Your task to perform on an android device: toggle notifications settings in the gmail app Image 0: 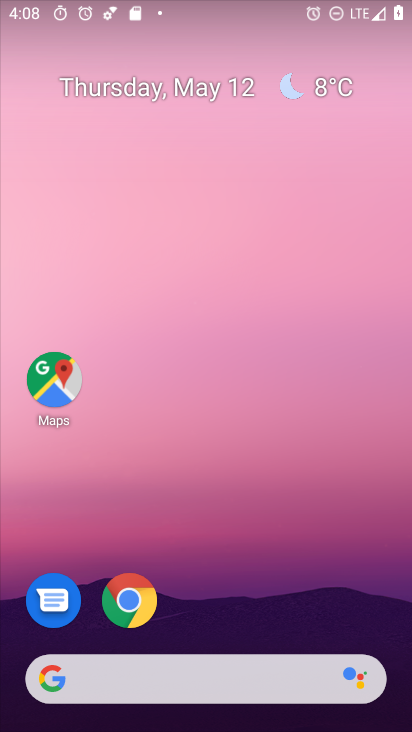
Step 0: drag from (209, 725) to (210, 223)
Your task to perform on an android device: toggle notifications settings in the gmail app Image 1: 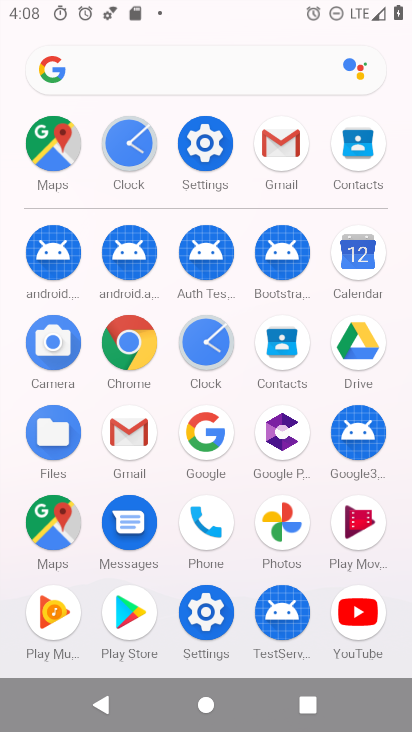
Step 1: click (204, 142)
Your task to perform on an android device: toggle notifications settings in the gmail app Image 2: 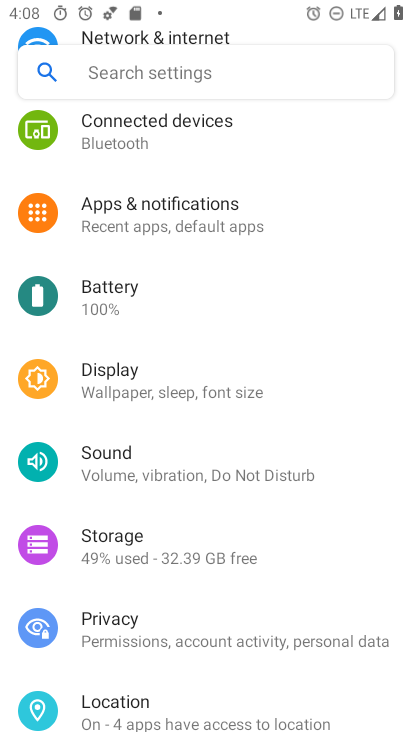
Step 2: press back button
Your task to perform on an android device: toggle notifications settings in the gmail app Image 3: 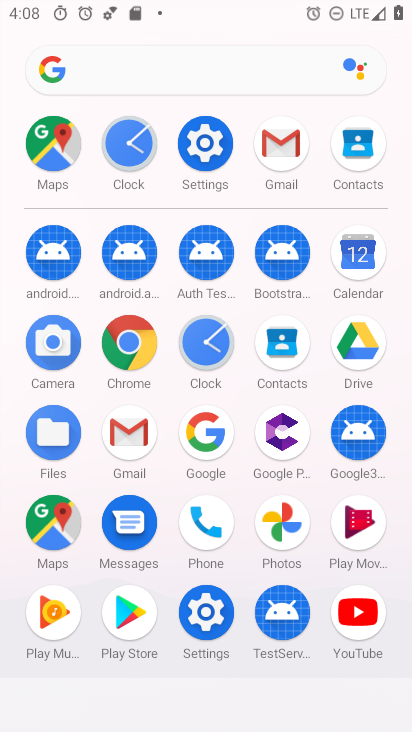
Step 3: click (125, 437)
Your task to perform on an android device: toggle notifications settings in the gmail app Image 4: 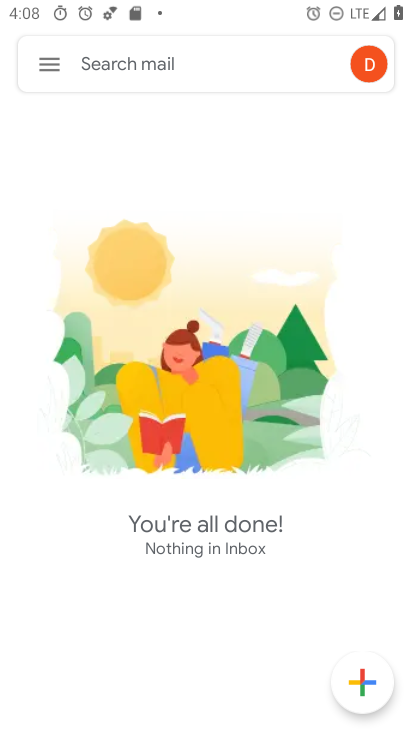
Step 4: click (46, 60)
Your task to perform on an android device: toggle notifications settings in the gmail app Image 5: 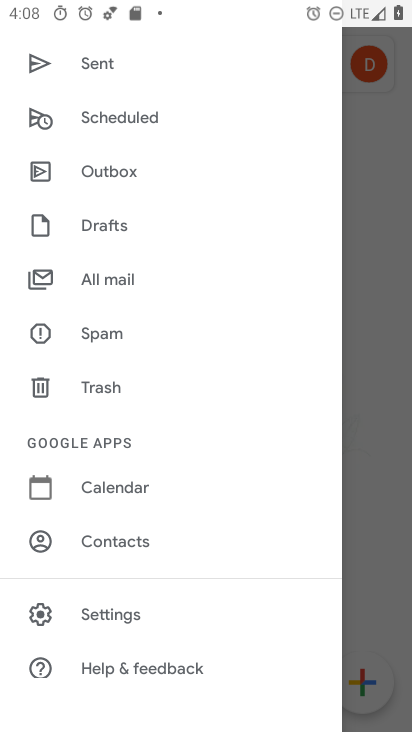
Step 5: click (105, 607)
Your task to perform on an android device: toggle notifications settings in the gmail app Image 6: 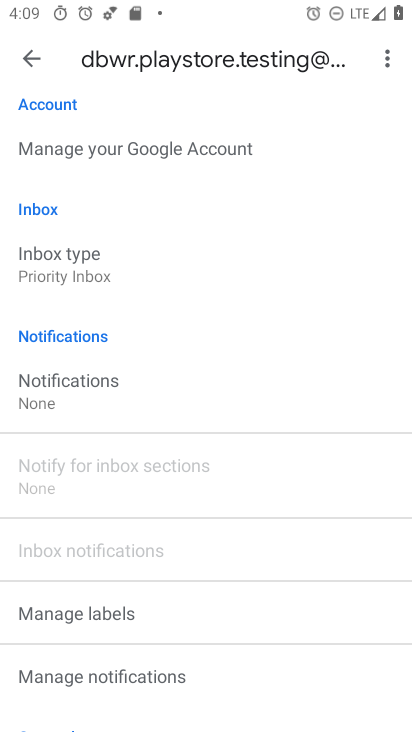
Step 6: click (67, 383)
Your task to perform on an android device: toggle notifications settings in the gmail app Image 7: 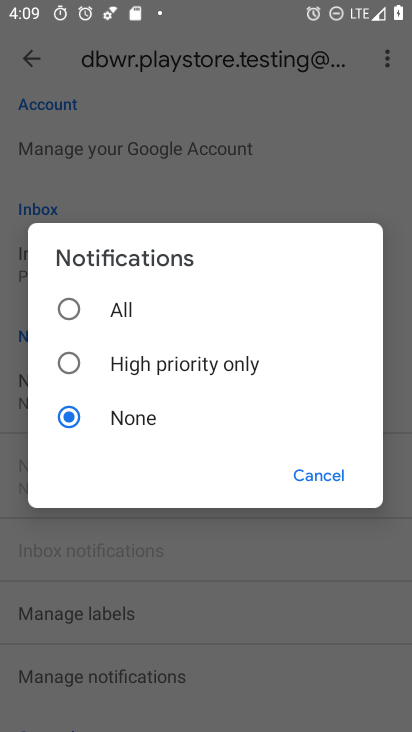
Step 7: click (70, 311)
Your task to perform on an android device: toggle notifications settings in the gmail app Image 8: 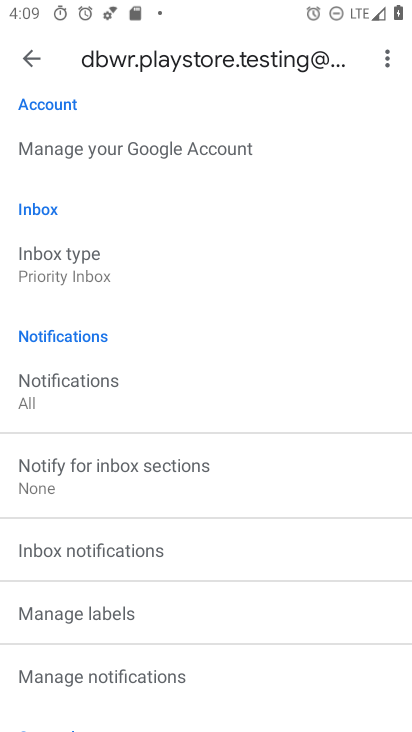
Step 8: task complete